Your task to perform on an android device: turn on priority inbox in the gmail app Image 0: 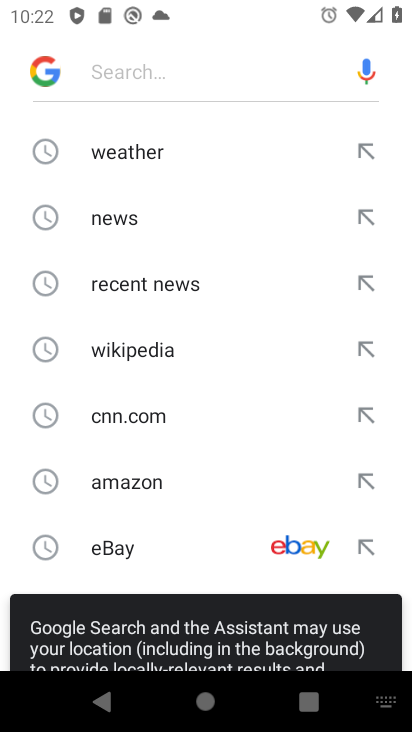
Step 0: press home button
Your task to perform on an android device: turn on priority inbox in the gmail app Image 1: 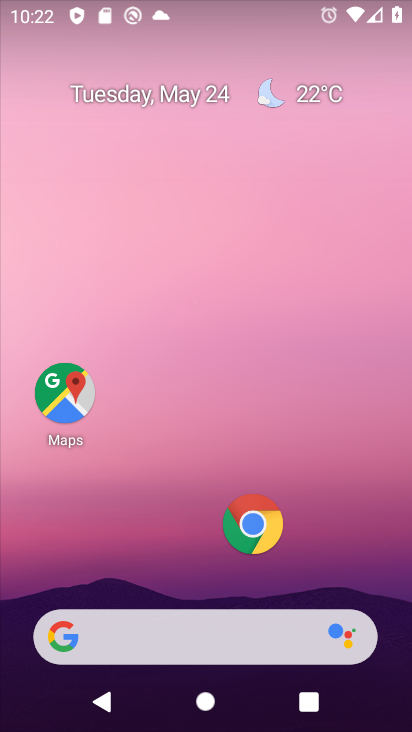
Step 1: drag from (153, 491) to (248, 47)
Your task to perform on an android device: turn on priority inbox in the gmail app Image 2: 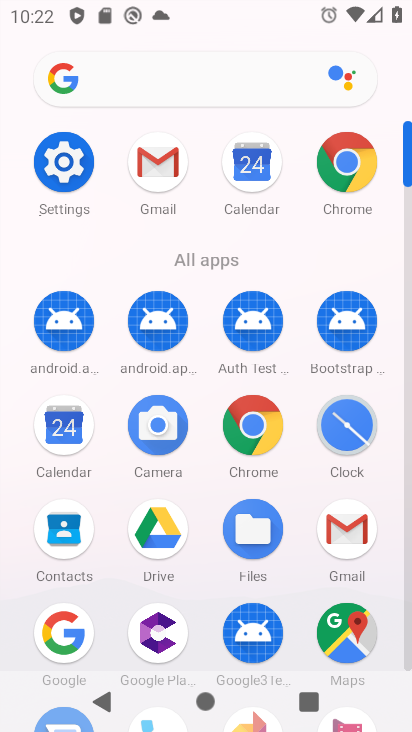
Step 2: click (149, 185)
Your task to perform on an android device: turn on priority inbox in the gmail app Image 3: 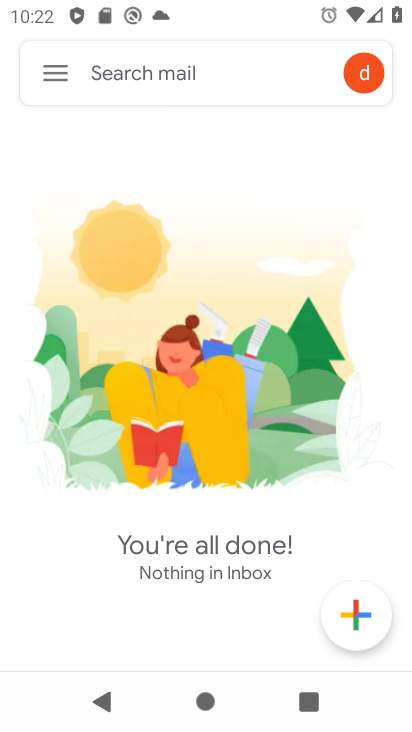
Step 3: click (57, 64)
Your task to perform on an android device: turn on priority inbox in the gmail app Image 4: 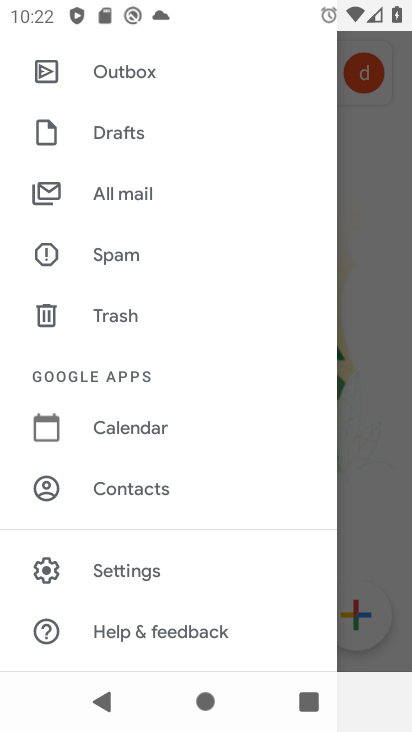
Step 4: click (146, 581)
Your task to perform on an android device: turn on priority inbox in the gmail app Image 5: 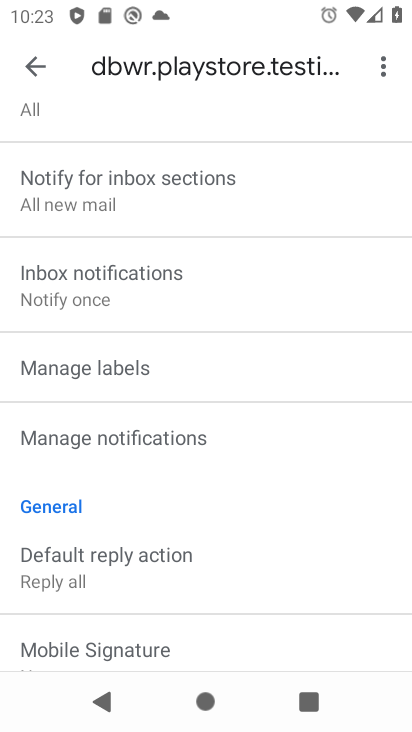
Step 5: drag from (199, 271) to (182, 652)
Your task to perform on an android device: turn on priority inbox in the gmail app Image 6: 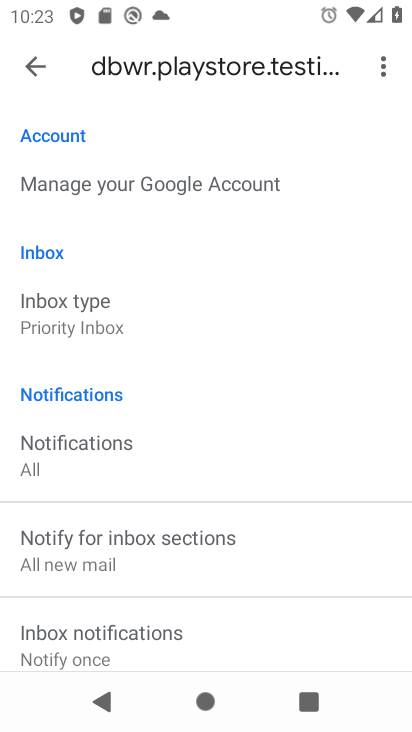
Step 6: click (110, 316)
Your task to perform on an android device: turn on priority inbox in the gmail app Image 7: 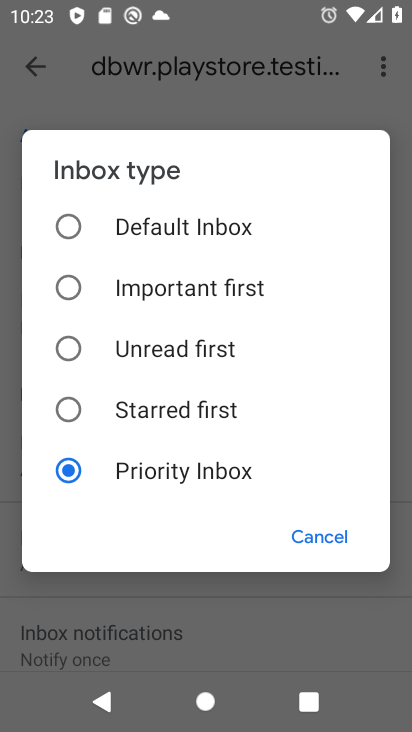
Step 7: click (331, 535)
Your task to perform on an android device: turn on priority inbox in the gmail app Image 8: 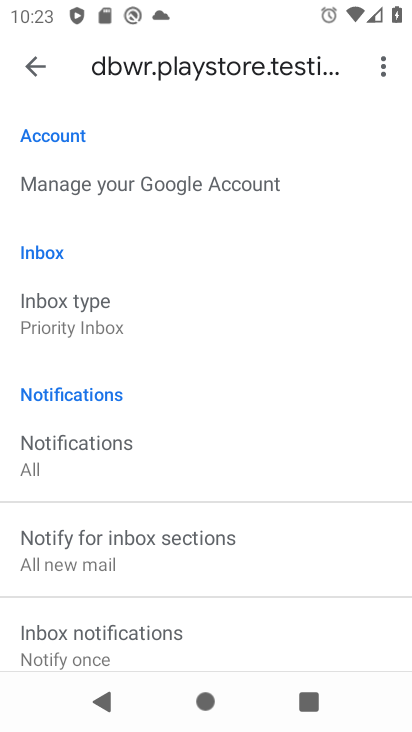
Step 8: task complete